Your task to perform on an android device: Go to Reddit.com Image 0: 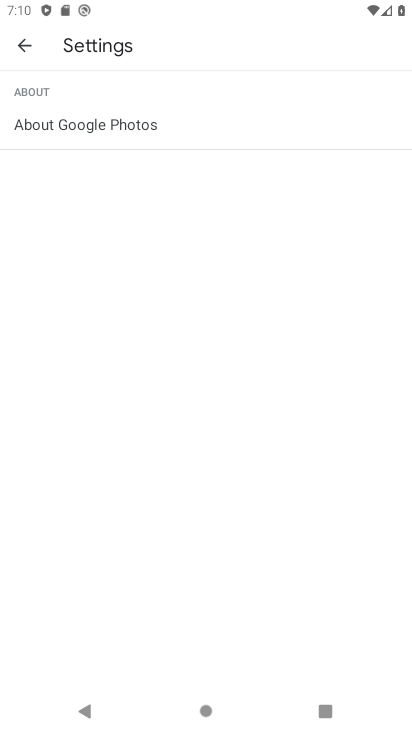
Step 0: press home button
Your task to perform on an android device: Go to Reddit.com Image 1: 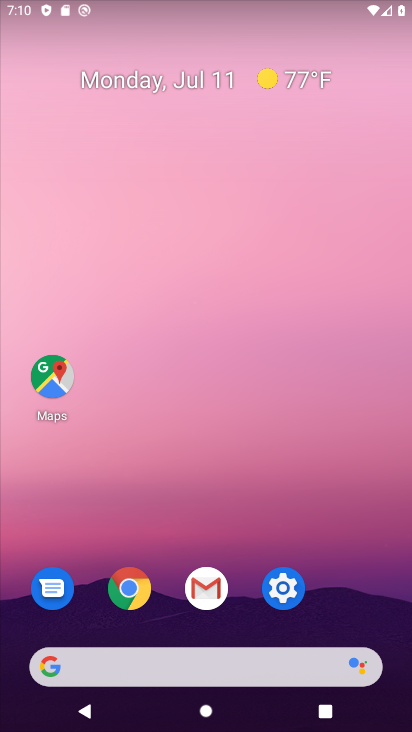
Step 1: click (131, 576)
Your task to perform on an android device: Go to Reddit.com Image 2: 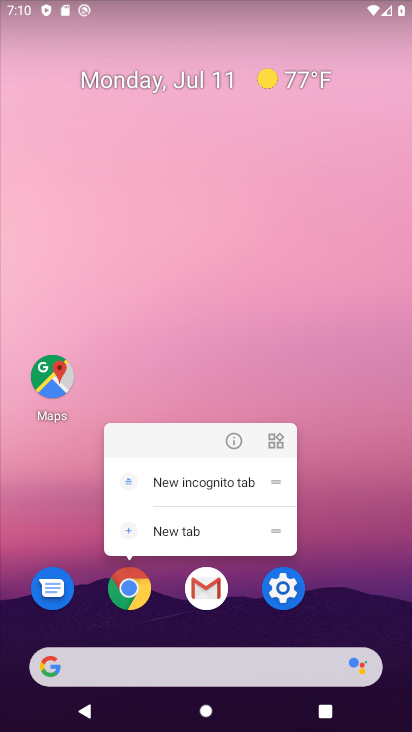
Step 2: click (130, 580)
Your task to perform on an android device: Go to Reddit.com Image 3: 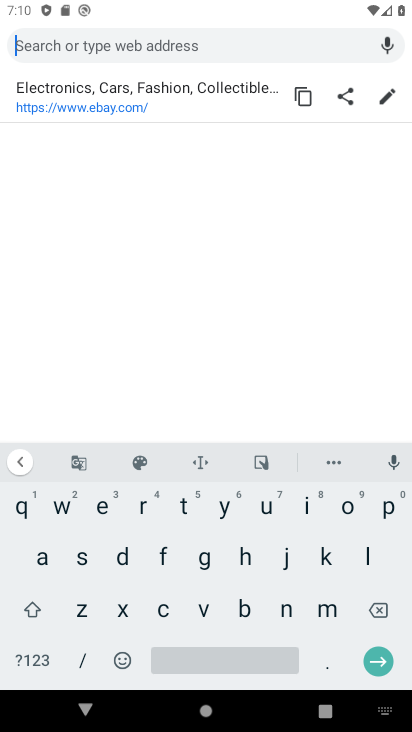
Step 3: click (124, 49)
Your task to perform on an android device: Go to Reddit.com Image 4: 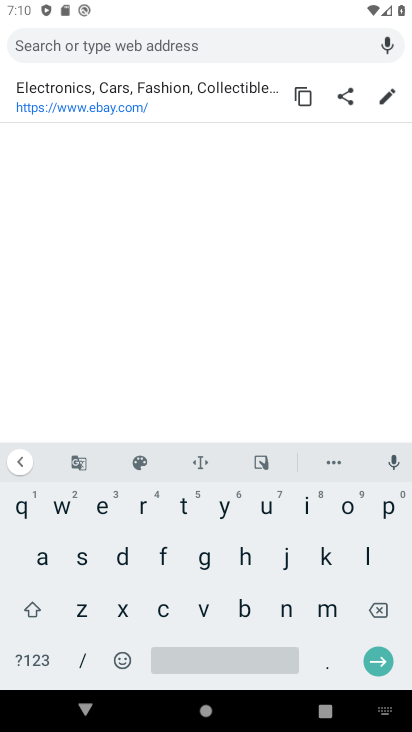
Step 4: click (142, 507)
Your task to perform on an android device: Go to Reddit.com Image 5: 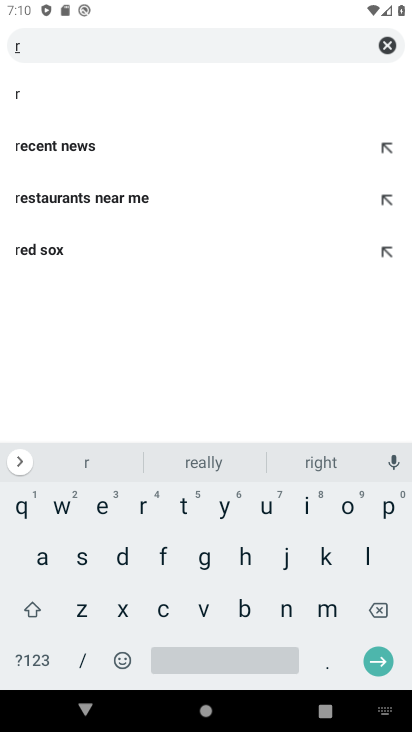
Step 5: click (98, 504)
Your task to perform on an android device: Go to Reddit.com Image 6: 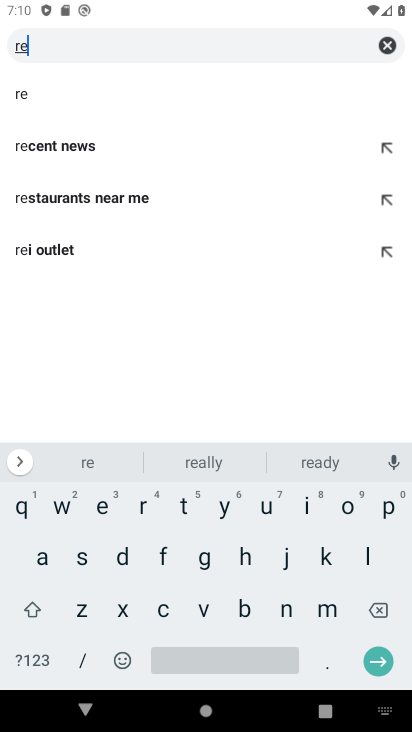
Step 6: click (122, 556)
Your task to perform on an android device: Go to Reddit.com Image 7: 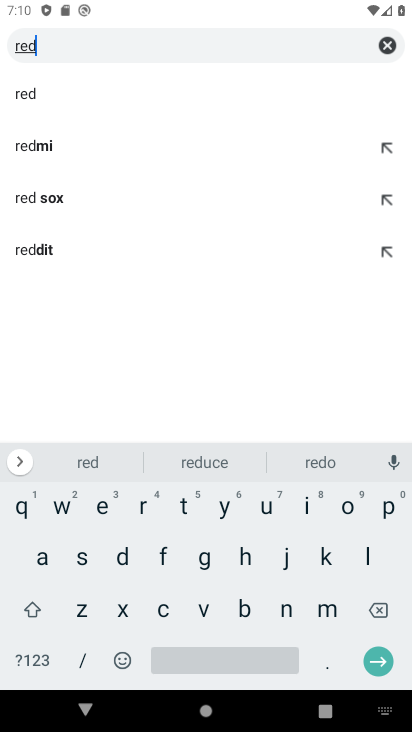
Step 7: click (67, 232)
Your task to perform on an android device: Go to Reddit.com Image 8: 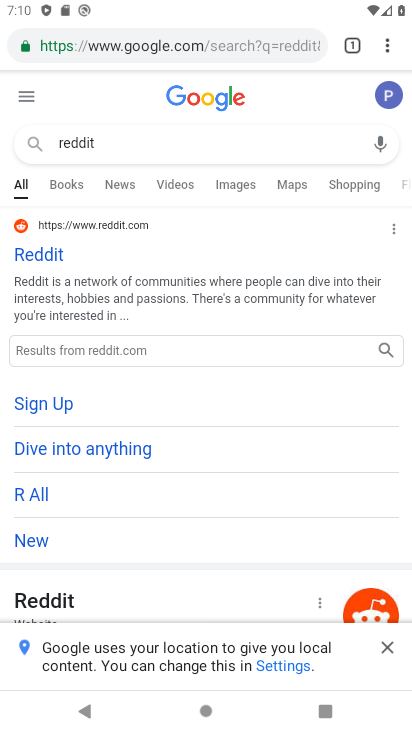
Step 8: click (51, 256)
Your task to perform on an android device: Go to Reddit.com Image 9: 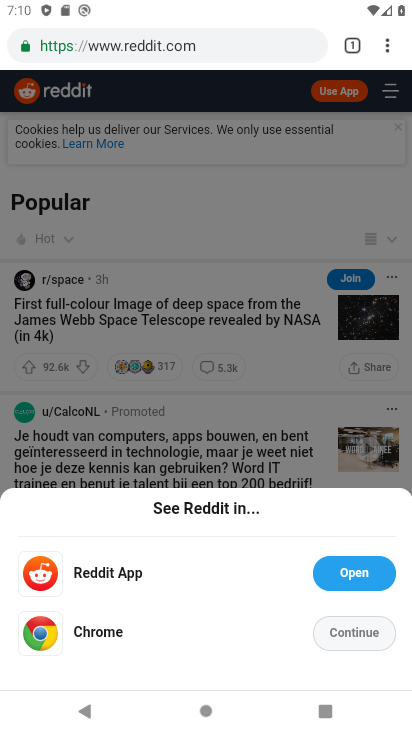
Step 9: click (341, 630)
Your task to perform on an android device: Go to Reddit.com Image 10: 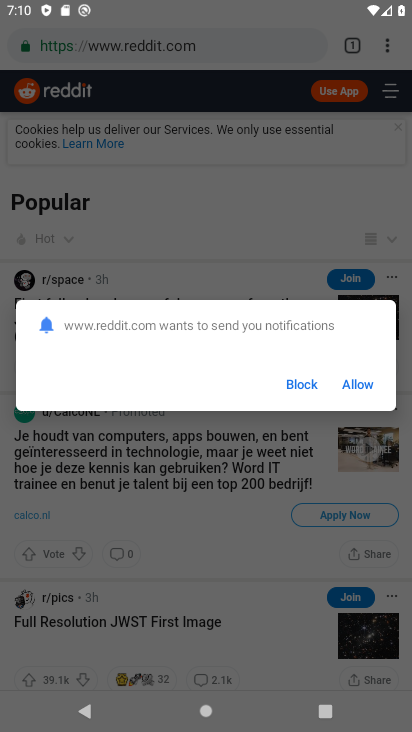
Step 10: click (346, 382)
Your task to perform on an android device: Go to Reddit.com Image 11: 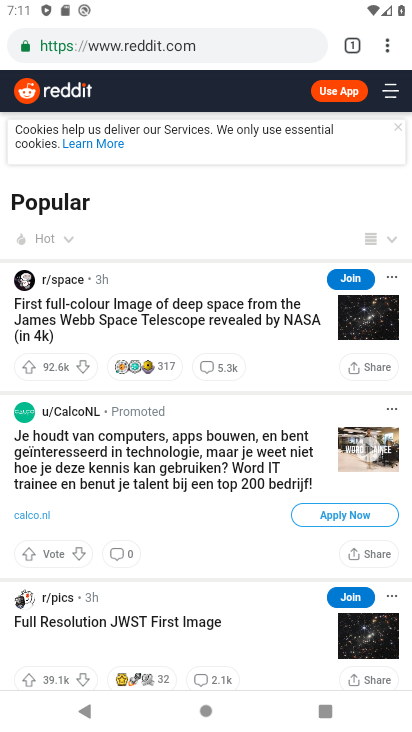
Step 11: task complete